Your task to perform on an android device: turn on the 24-hour format for clock Image 0: 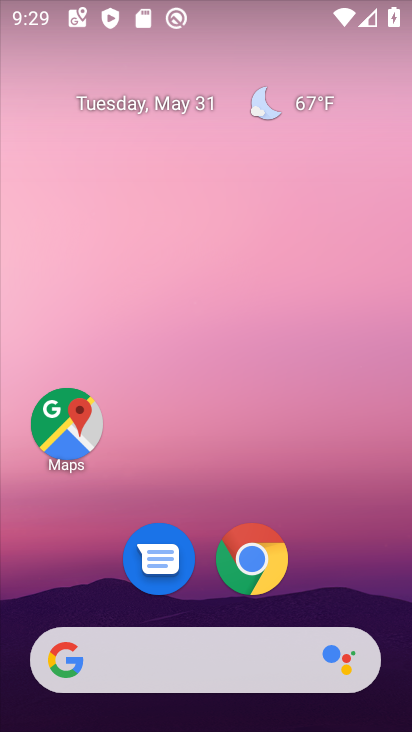
Step 0: drag from (341, 584) to (320, 33)
Your task to perform on an android device: turn on the 24-hour format for clock Image 1: 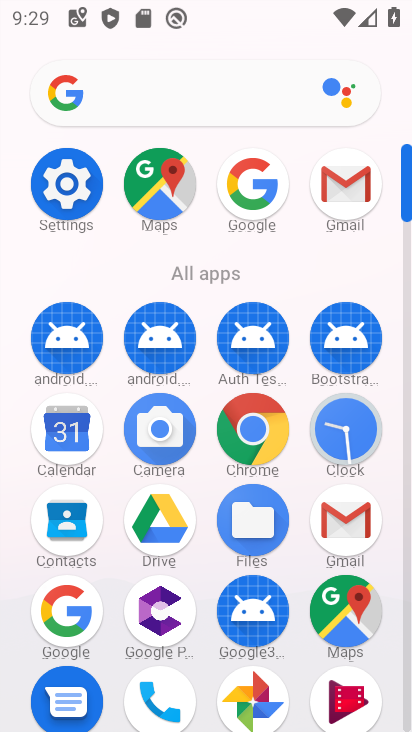
Step 1: click (355, 430)
Your task to perform on an android device: turn on the 24-hour format for clock Image 2: 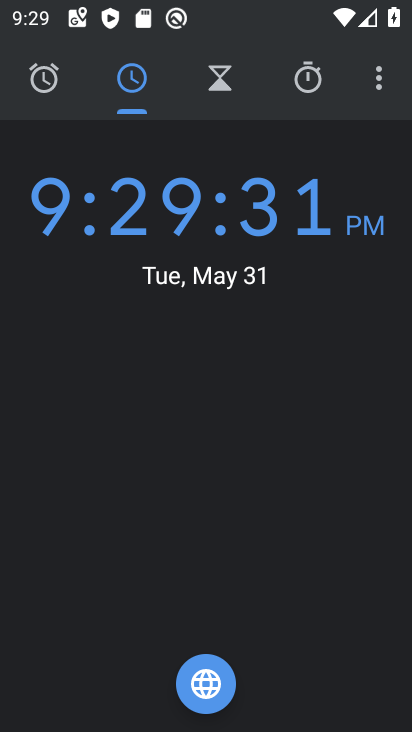
Step 2: click (370, 79)
Your task to perform on an android device: turn on the 24-hour format for clock Image 3: 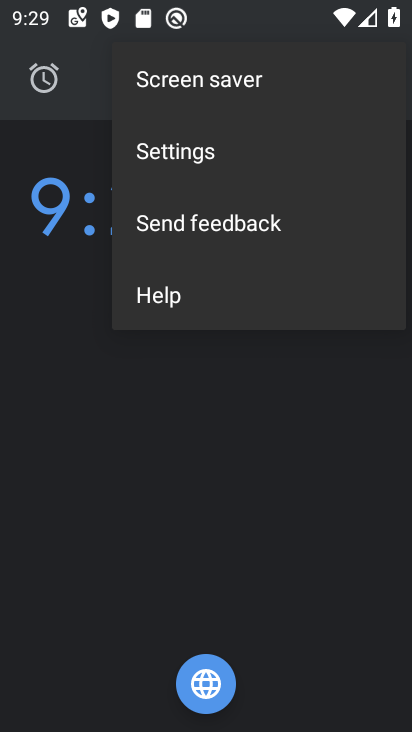
Step 3: click (158, 167)
Your task to perform on an android device: turn on the 24-hour format for clock Image 4: 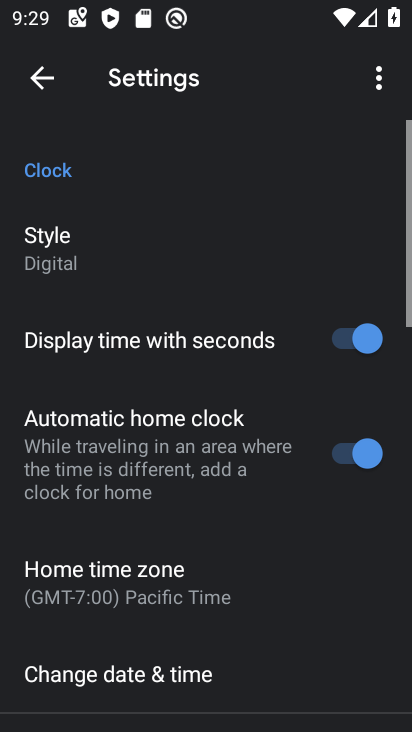
Step 4: click (116, 674)
Your task to perform on an android device: turn on the 24-hour format for clock Image 5: 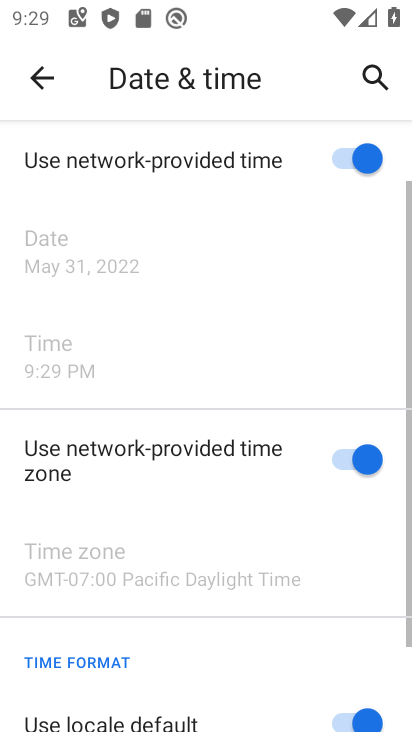
Step 5: drag from (215, 640) to (231, 198)
Your task to perform on an android device: turn on the 24-hour format for clock Image 6: 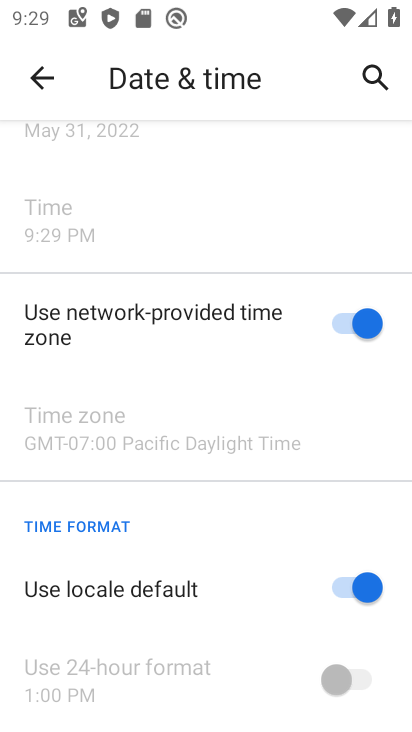
Step 6: click (357, 600)
Your task to perform on an android device: turn on the 24-hour format for clock Image 7: 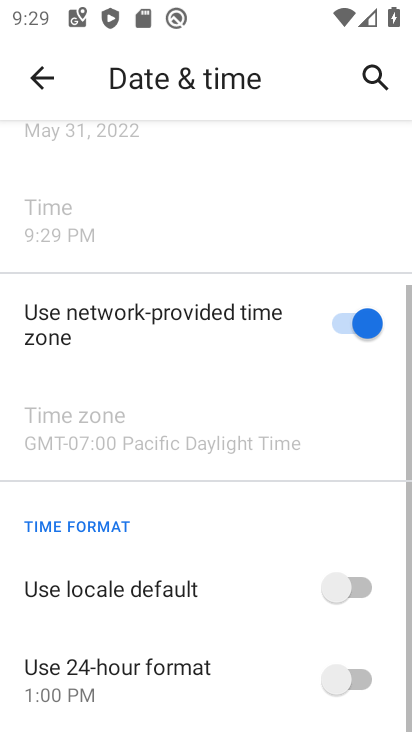
Step 7: click (344, 674)
Your task to perform on an android device: turn on the 24-hour format for clock Image 8: 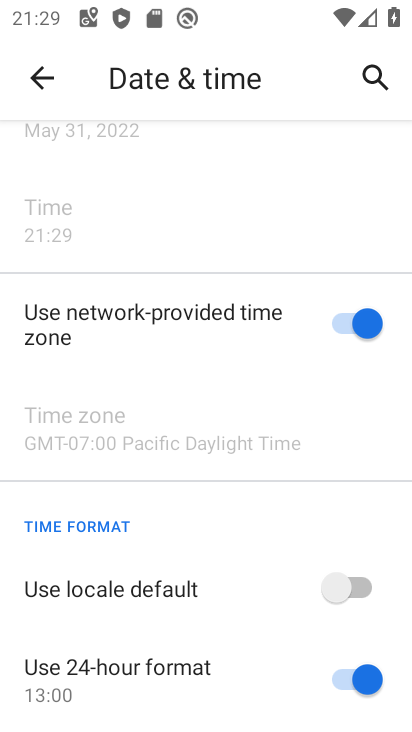
Step 8: task complete